Your task to perform on an android device: Search for Italian restaurants on Maps Image 0: 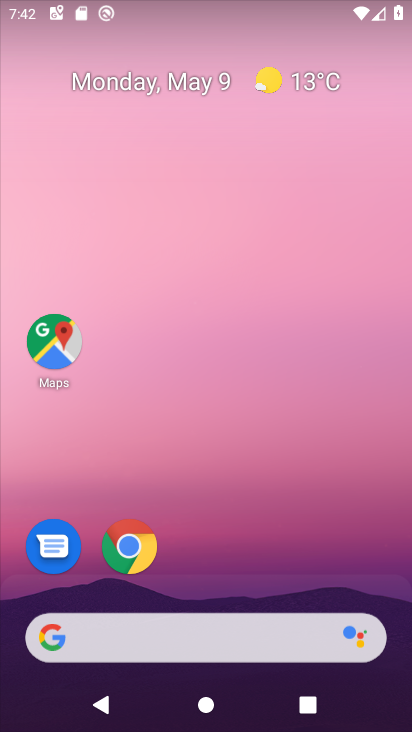
Step 0: drag from (163, 588) to (187, 186)
Your task to perform on an android device: Search for Italian restaurants on Maps Image 1: 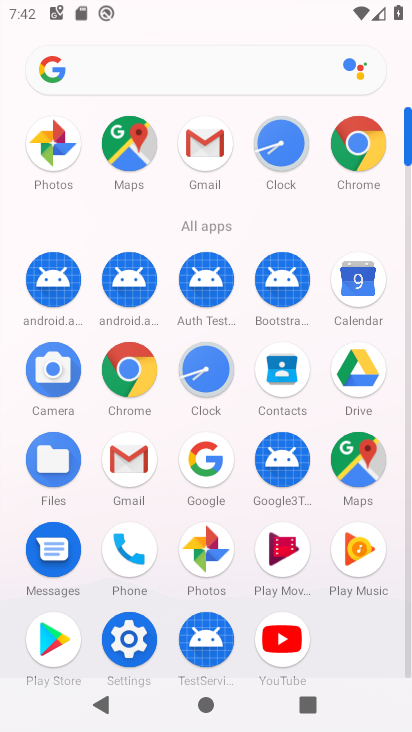
Step 1: click (269, 627)
Your task to perform on an android device: Search for Italian restaurants on Maps Image 2: 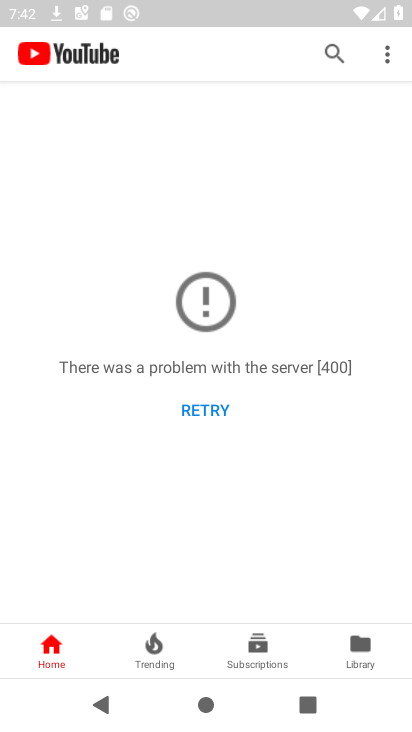
Step 2: click (356, 646)
Your task to perform on an android device: Search for Italian restaurants on Maps Image 3: 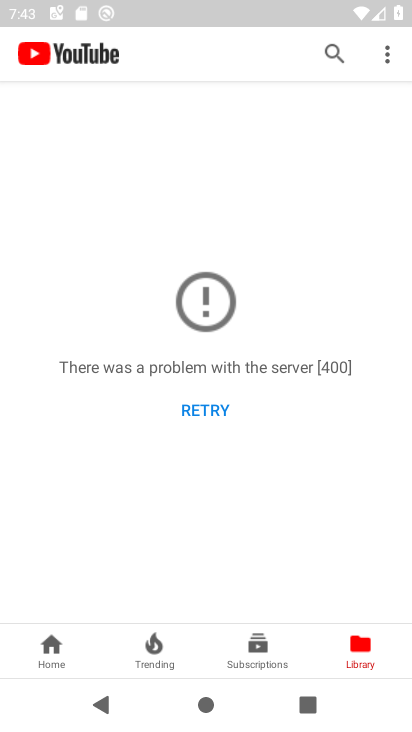
Step 3: task complete